Your task to perform on an android device: turn vacation reply on in the gmail app Image 0: 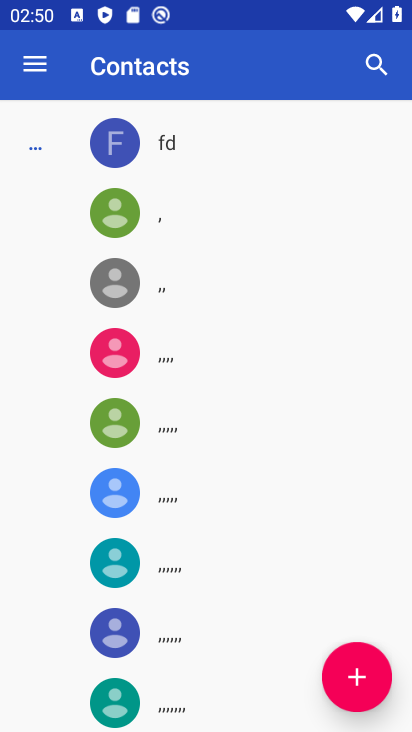
Step 0: press home button
Your task to perform on an android device: turn vacation reply on in the gmail app Image 1: 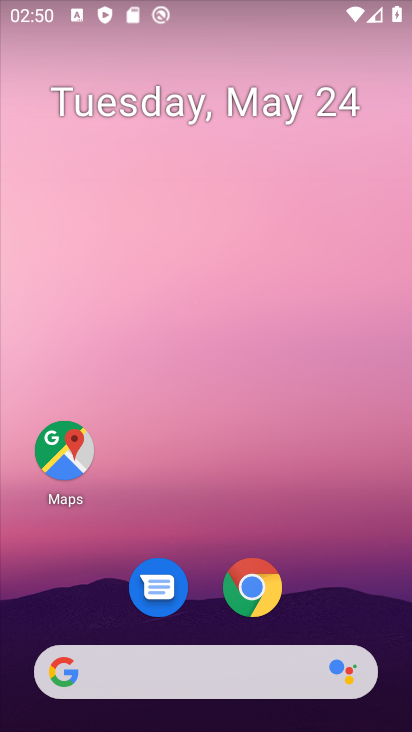
Step 1: drag from (277, 717) to (287, 278)
Your task to perform on an android device: turn vacation reply on in the gmail app Image 2: 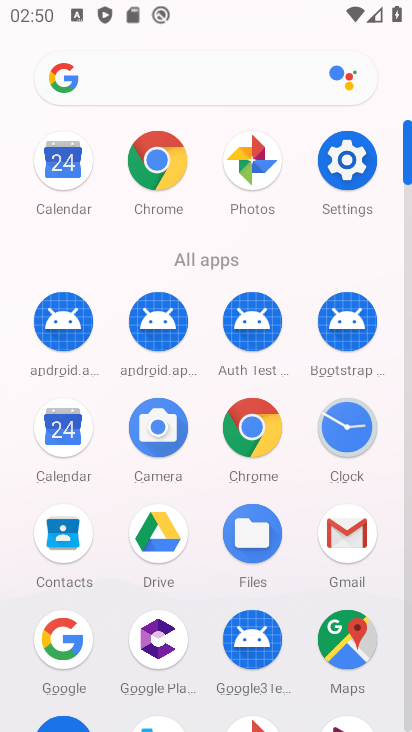
Step 2: click (345, 539)
Your task to perform on an android device: turn vacation reply on in the gmail app Image 3: 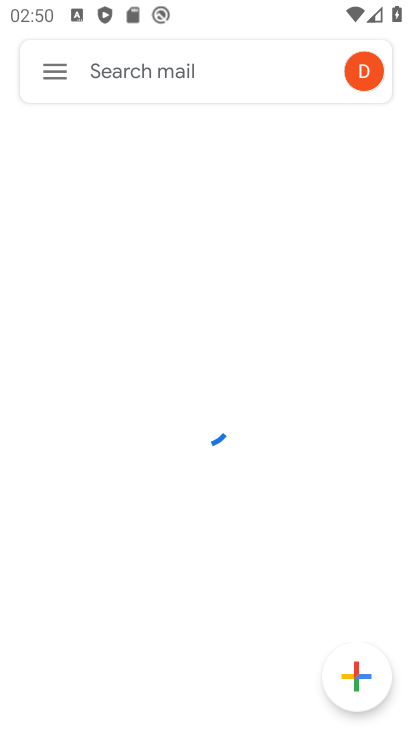
Step 3: click (54, 82)
Your task to perform on an android device: turn vacation reply on in the gmail app Image 4: 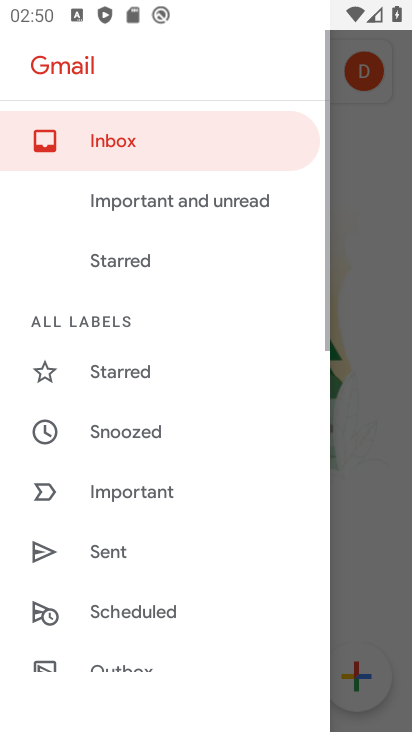
Step 4: drag from (185, 622) to (166, 19)
Your task to perform on an android device: turn vacation reply on in the gmail app Image 5: 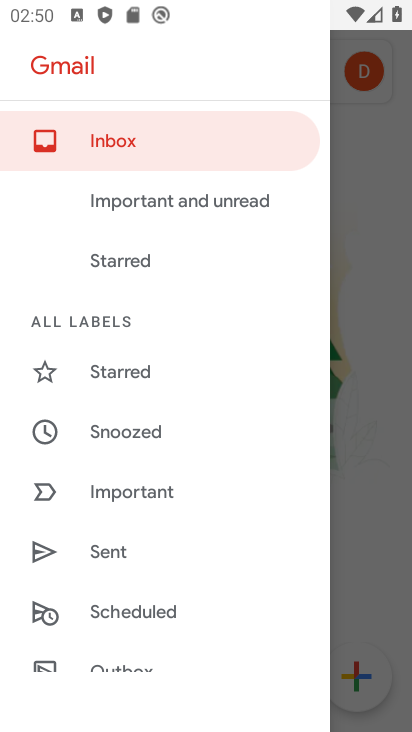
Step 5: drag from (176, 588) to (217, 49)
Your task to perform on an android device: turn vacation reply on in the gmail app Image 6: 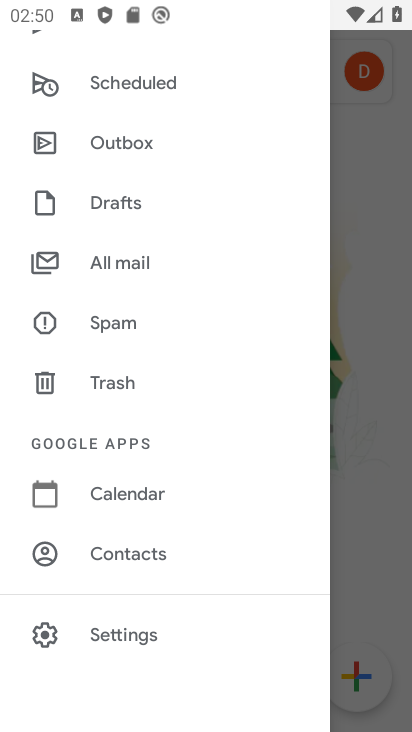
Step 6: click (129, 635)
Your task to perform on an android device: turn vacation reply on in the gmail app Image 7: 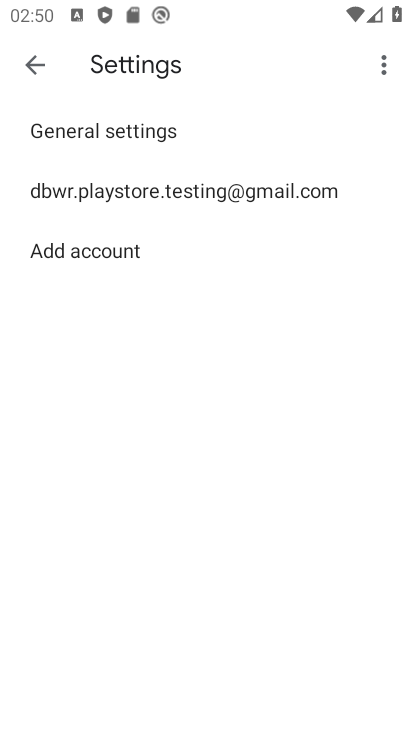
Step 7: click (254, 185)
Your task to perform on an android device: turn vacation reply on in the gmail app Image 8: 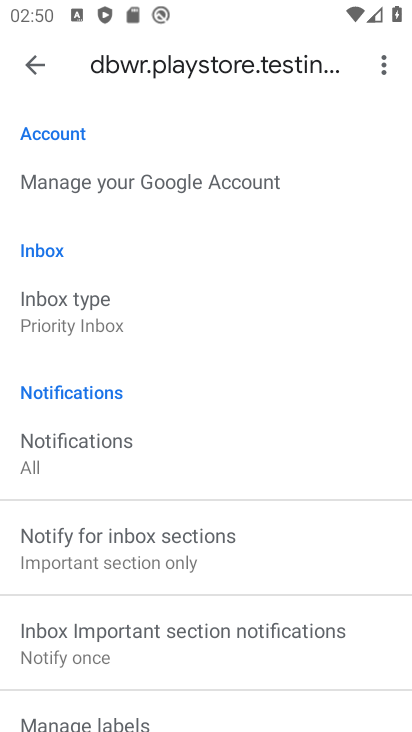
Step 8: drag from (205, 680) to (219, 264)
Your task to perform on an android device: turn vacation reply on in the gmail app Image 9: 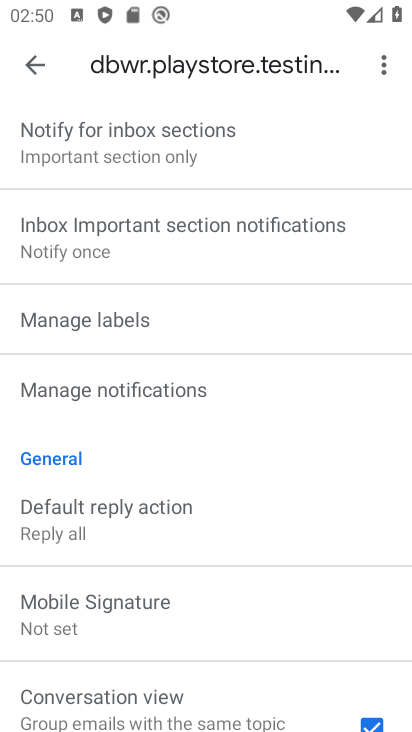
Step 9: drag from (171, 639) to (165, 305)
Your task to perform on an android device: turn vacation reply on in the gmail app Image 10: 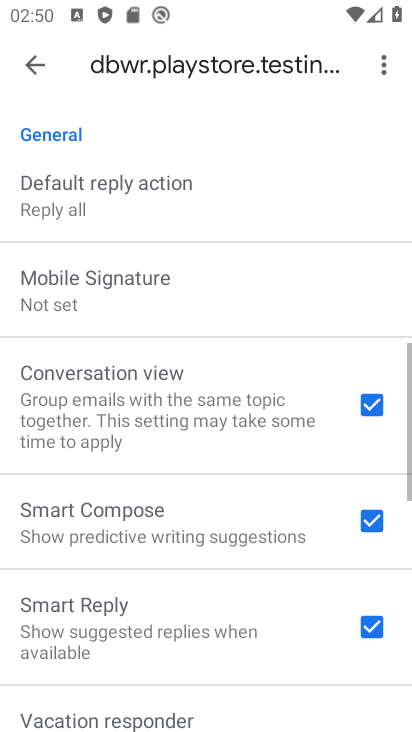
Step 10: click (171, 715)
Your task to perform on an android device: turn vacation reply on in the gmail app Image 11: 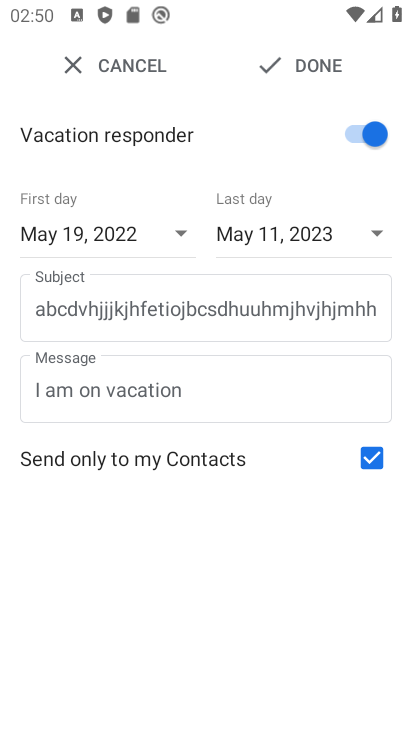
Step 11: click (336, 58)
Your task to perform on an android device: turn vacation reply on in the gmail app Image 12: 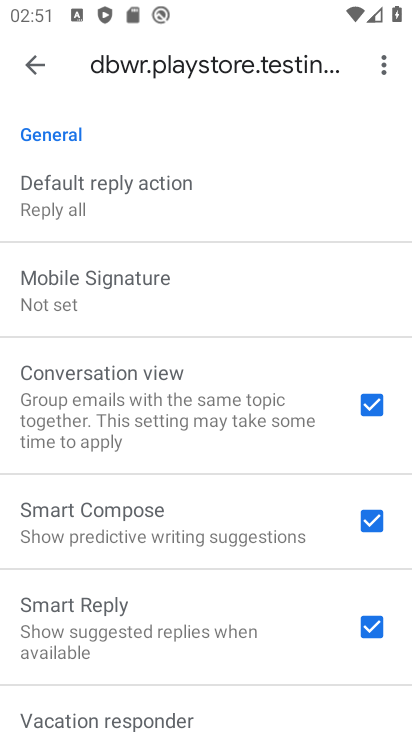
Step 12: task complete